Your task to perform on an android device: Go to privacy settings Image 0: 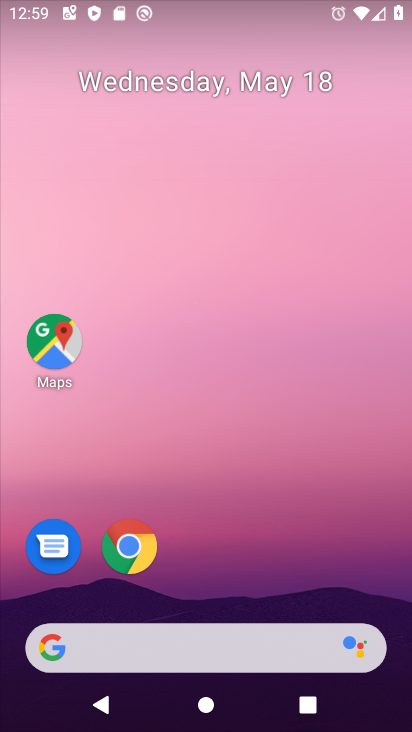
Step 0: drag from (281, 645) to (290, 148)
Your task to perform on an android device: Go to privacy settings Image 1: 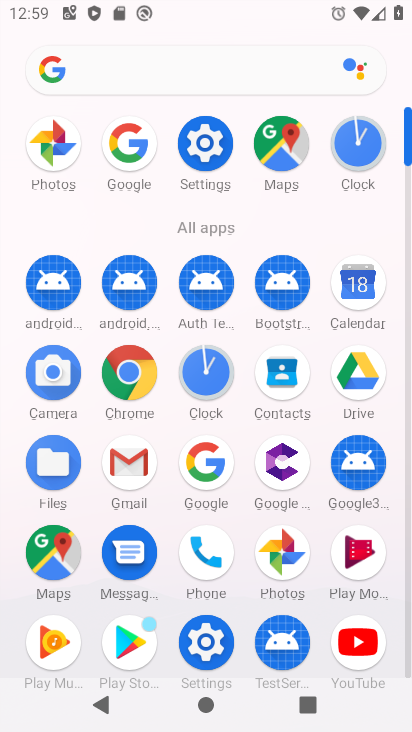
Step 1: click (192, 171)
Your task to perform on an android device: Go to privacy settings Image 2: 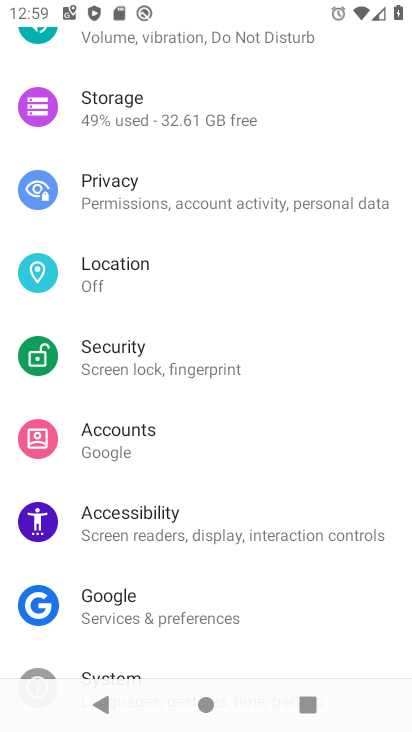
Step 2: click (157, 207)
Your task to perform on an android device: Go to privacy settings Image 3: 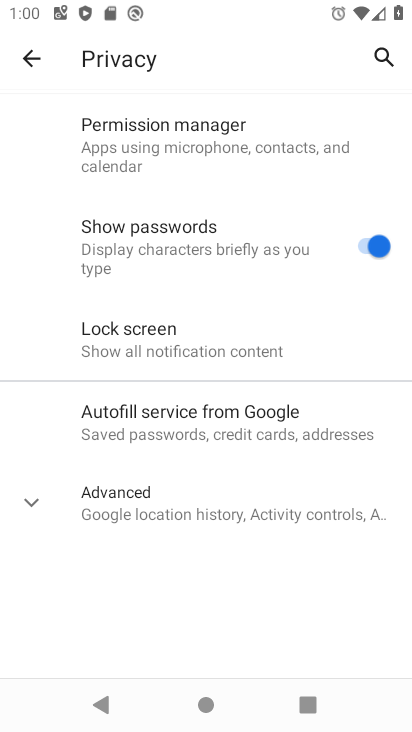
Step 3: task complete